Your task to perform on an android device: turn on translation in the chrome app Image 0: 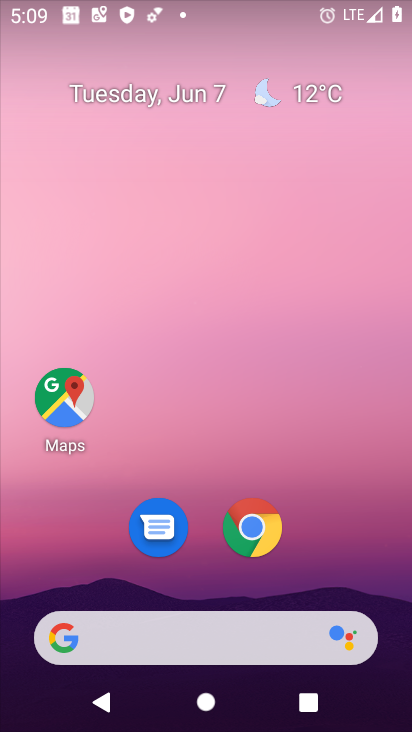
Step 0: click (254, 525)
Your task to perform on an android device: turn on translation in the chrome app Image 1: 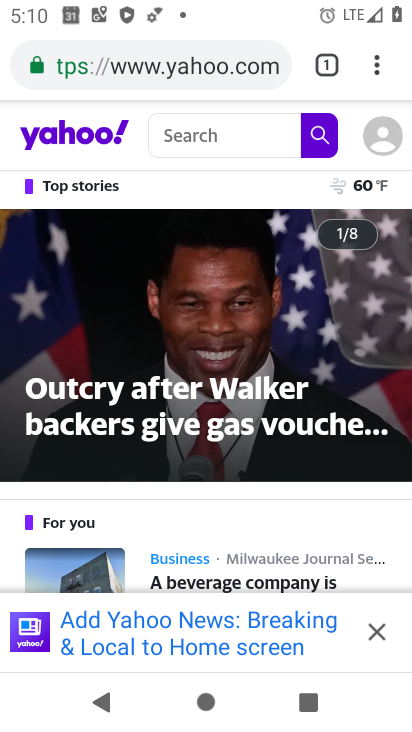
Step 1: click (379, 63)
Your task to perform on an android device: turn on translation in the chrome app Image 2: 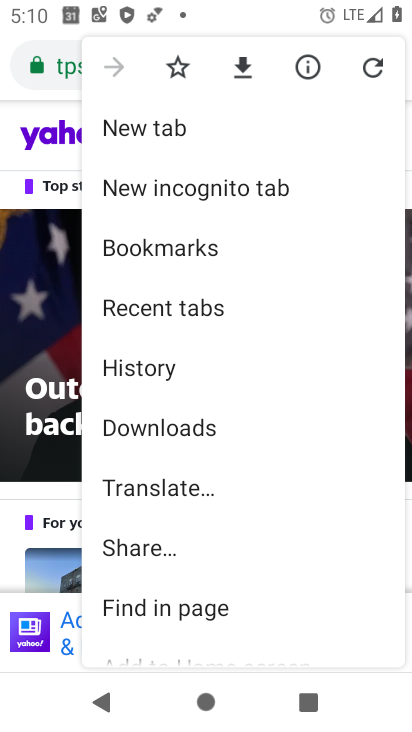
Step 2: drag from (198, 509) to (210, 408)
Your task to perform on an android device: turn on translation in the chrome app Image 3: 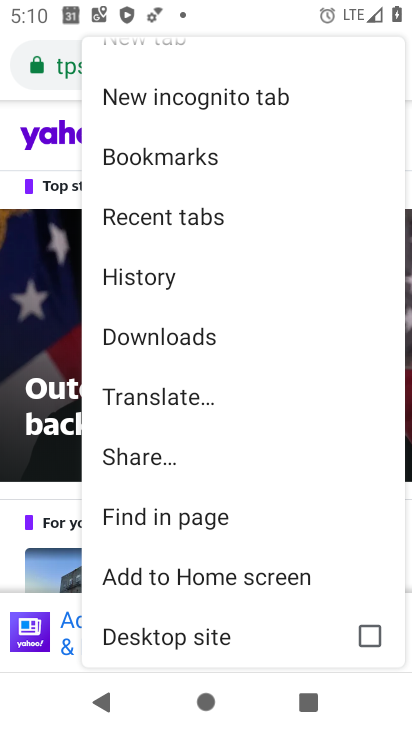
Step 3: drag from (172, 535) to (219, 392)
Your task to perform on an android device: turn on translation in the chrome app Image 4: 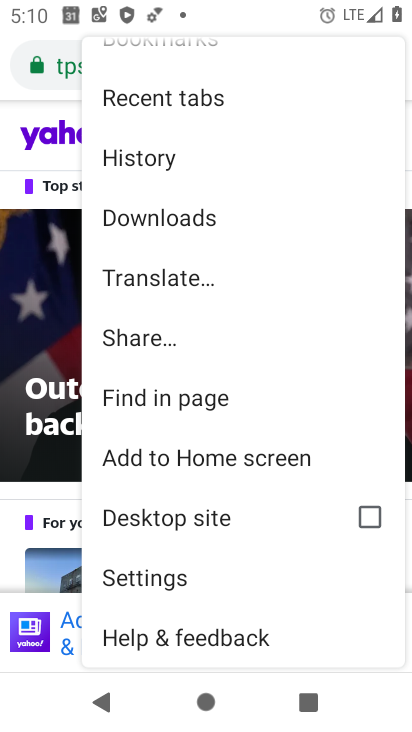
Step 4: click (161, 584)
Your task to perform on an android device: turn on translation in the chrome app Image 5: 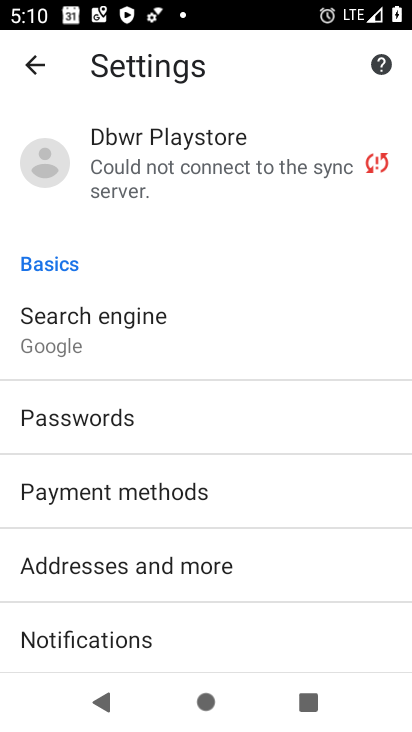
Step 5: drag from (234, 509) to (249, 383)
Your task to perform on an android device: turn on translation in the chrome app Image 6: 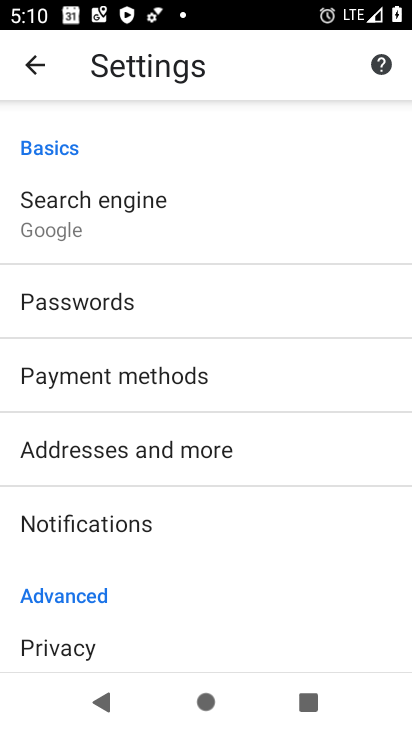
Step 6: drag from (184, 539) to (237, 400)
Your task to perform on an android device: turn on translation in the chrome app Image 7: 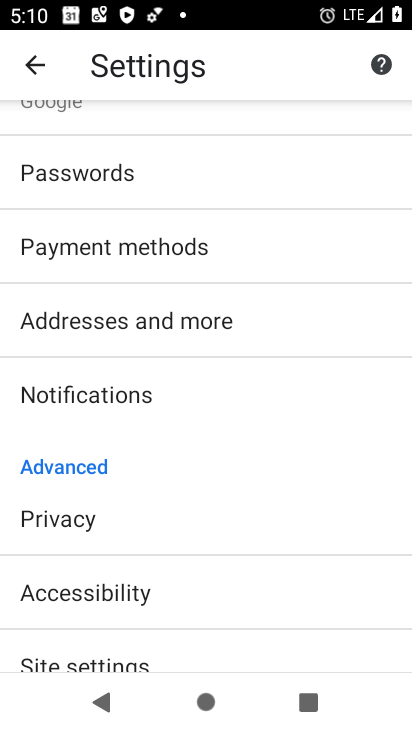
Step 7: drag from (177, 538) to (229, 378)
Your task to perform on an android device: turn on translation in the chrome app Image 8: 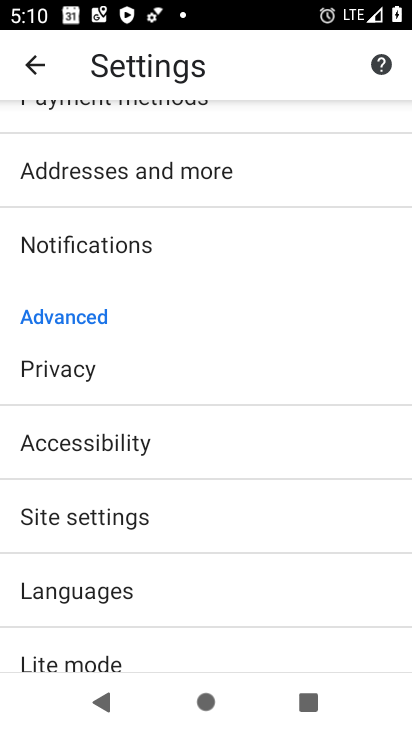
Step 8: click (100, 600)
Your task to perform on an android device: turn on translation in the chrome app Image 9: 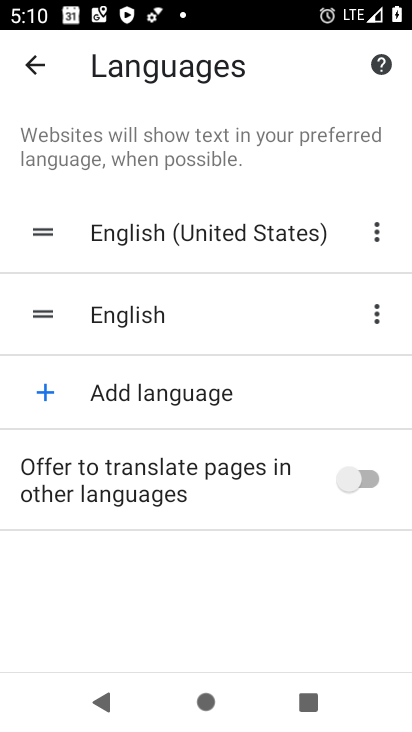
Step 9: click (352, 484)
Your task to perform on an android device: turn on translation in the chrome app Image 10: 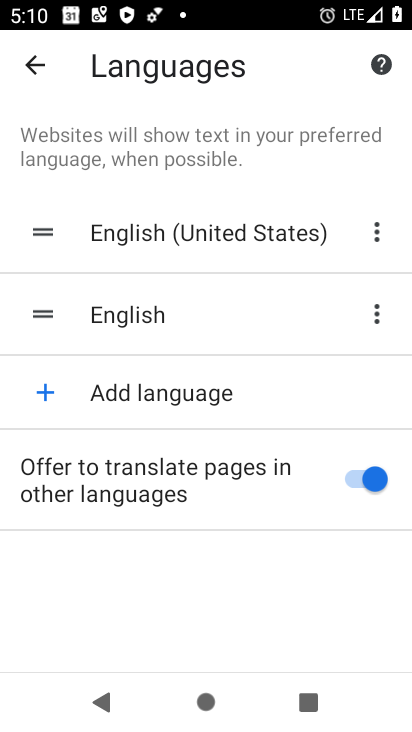
Step 10: task complete